Your task to perform on an android device: Open internet settings Image 0: 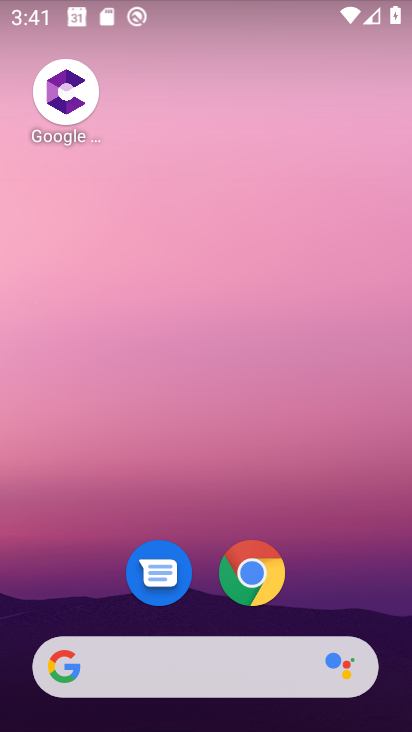
Step 0: press home button
Your task to perform on an android device: Open internet settings Image 1: 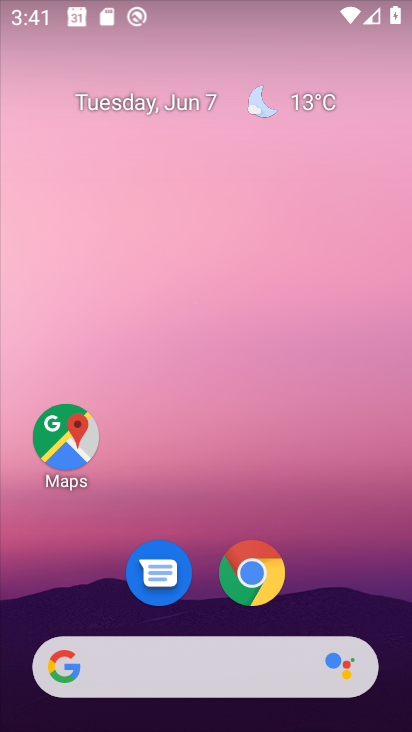
Step 1: drag from (359, 598) to (329, 33)
Your task to perform on an android device: Open internet settings Image 2: 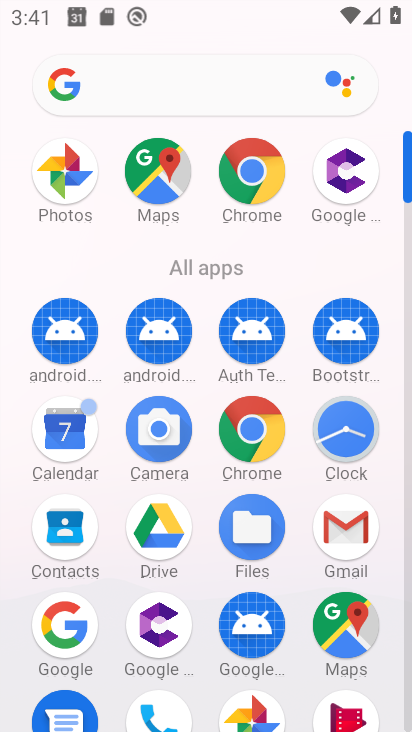
Step 2: click (405, 633)
Your task to perform on an android device: Open internet settings Image 3: 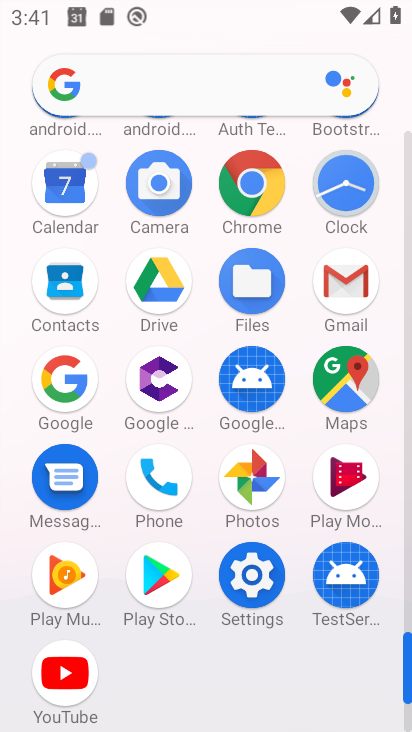
Step 3: click (256, 573)
Your task to perform on an android device: Open internet settings Image 4: 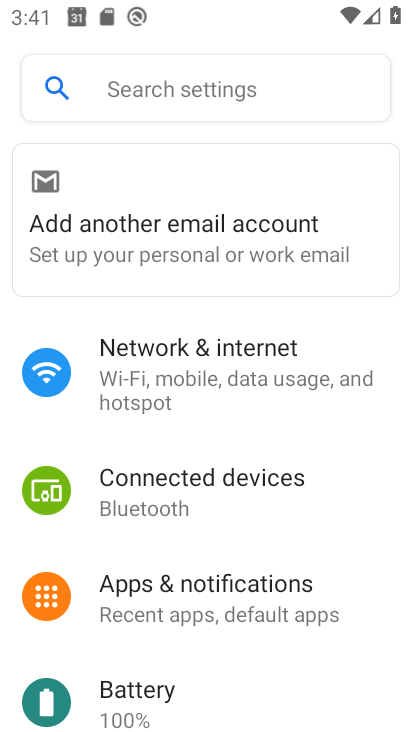
Step 4: click (172, 365)
Your task to perform on an android device: Open internet settings Image 5: 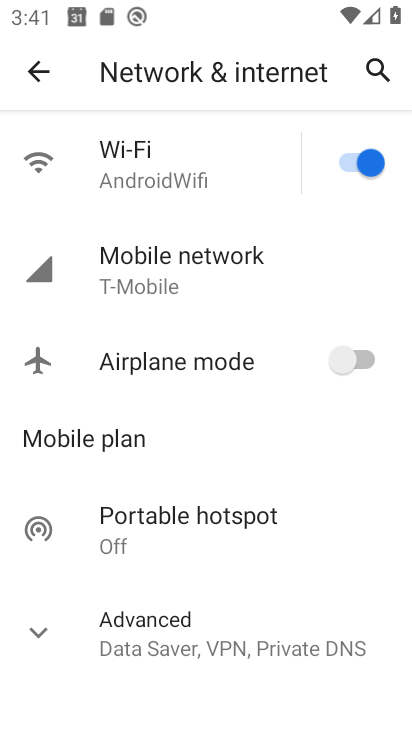
Step 5: task complete